Your task to perform on an android device: turn off translation in the chrome app Image 0: 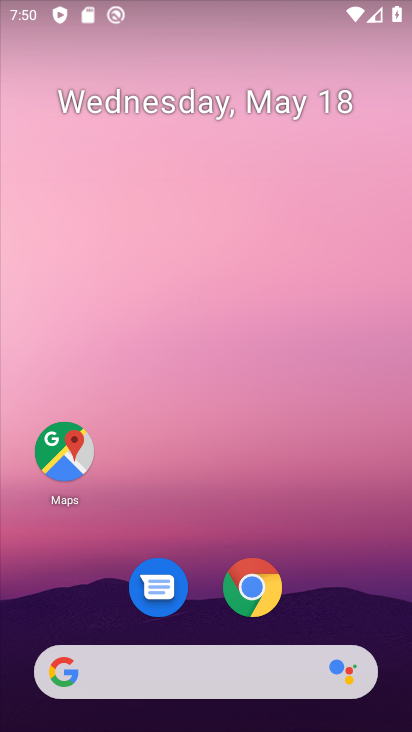
Step 0: drag from (208, 661) to (213, 332)
Your task to perform on an android device: turn off translation in the chrome app Image 1: 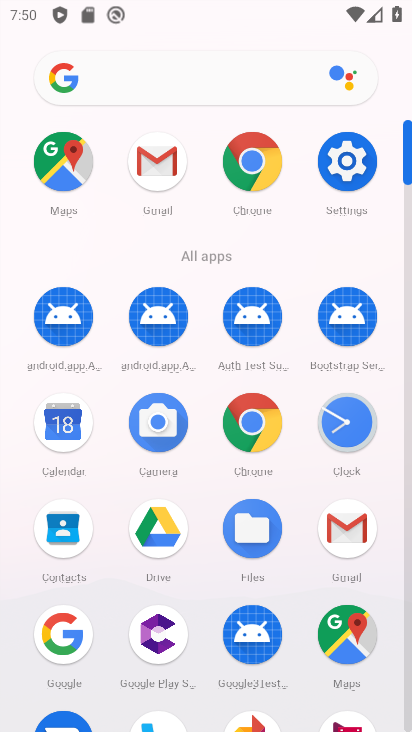
Step 1: click (250, 428)
Your task to perform on an android device: turn off translation in the chrome app Image 2: 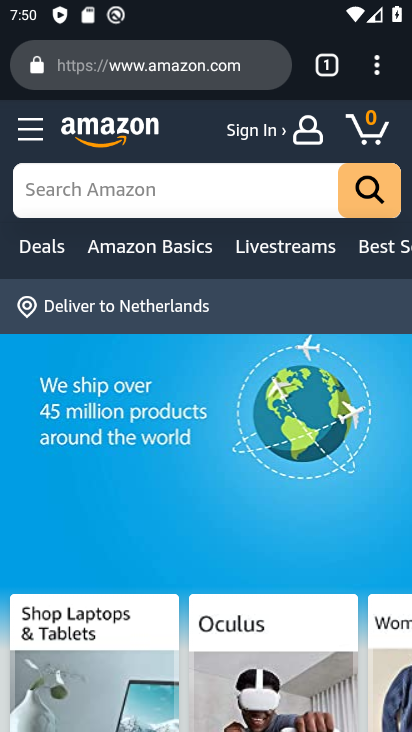
Step 2: click (379, 86)
Your task to perform on an android device: turn off translation in the chrome app Image 3: 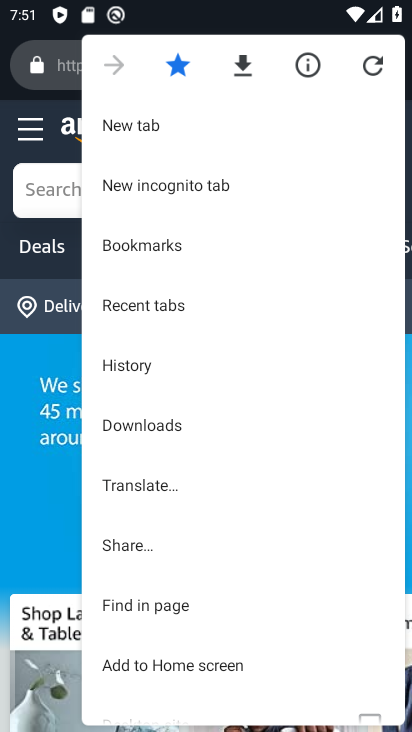
Step 3: click (170, 488)
Your task to perform on an android device: turn off translation in the chrome app Image 4: 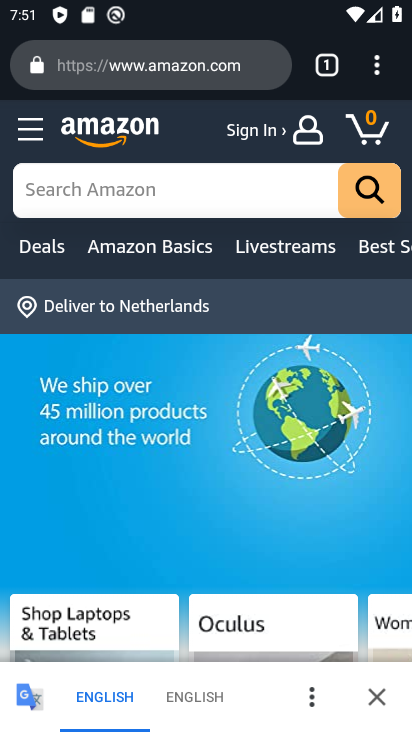
Step 4: click (312, 698)
Your task to perform on an android device: turn off translation in the chrome app Image 5: 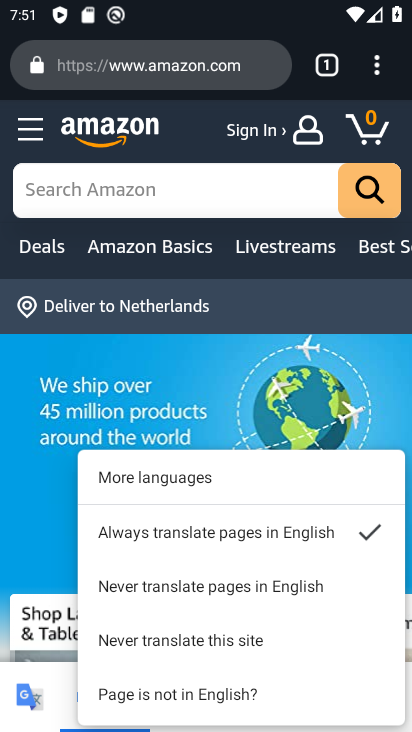
Step 5: click (276, 649)
Your task to perform on an android device: turn off translation in the chrome app Image 6: 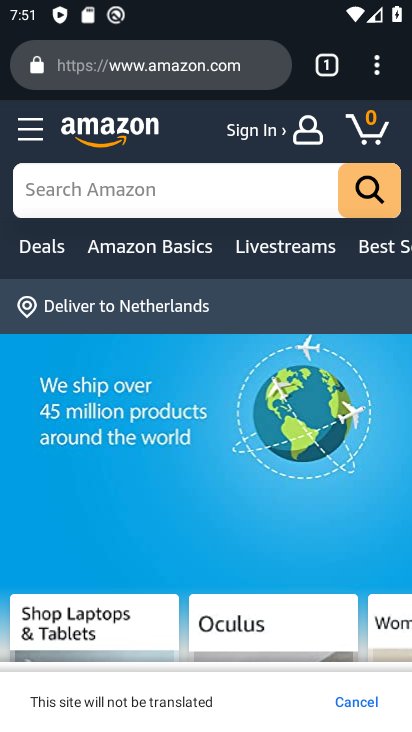
Step 6: task complete